Your task to perform on an android device: toggle location history Image 0: 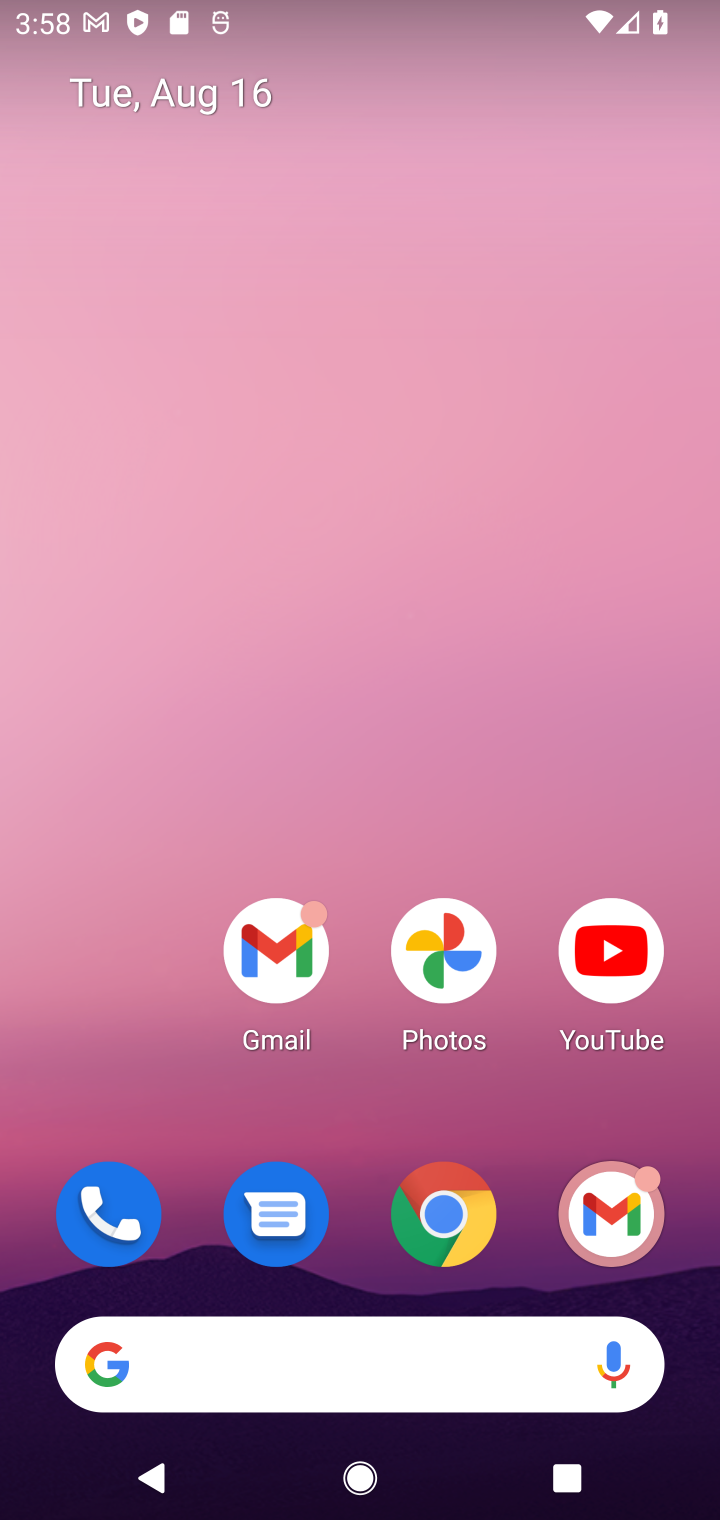
Step 0: drag from (192, 1334) to (460, 230)
Your task to perform on an android device: toggle location history Image 1: 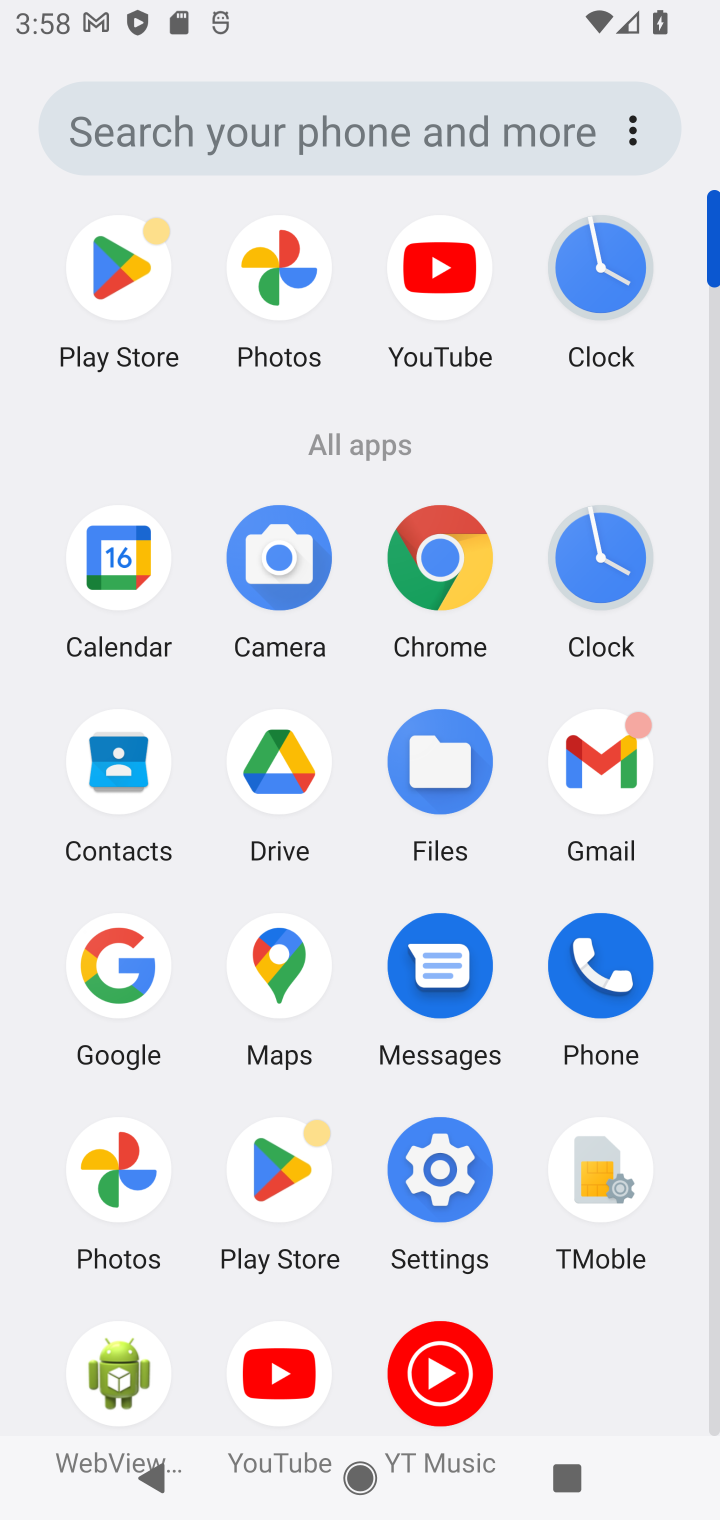
Step 1: click (449, 1169)
Your task to perform on an android device: toggle location history Image 2: 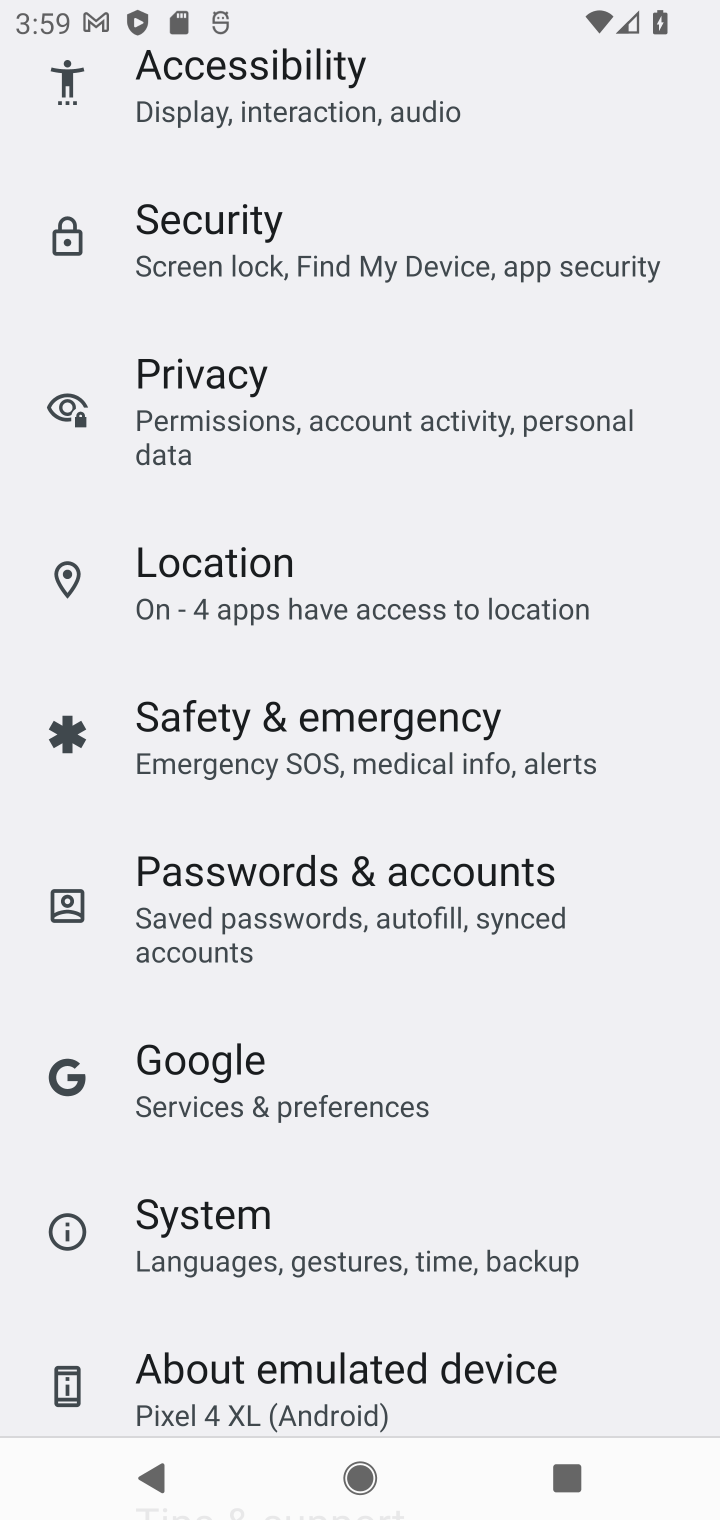
Step 2: click (206, 587)
Your task to perform on an android device: toggle location history Image 3: 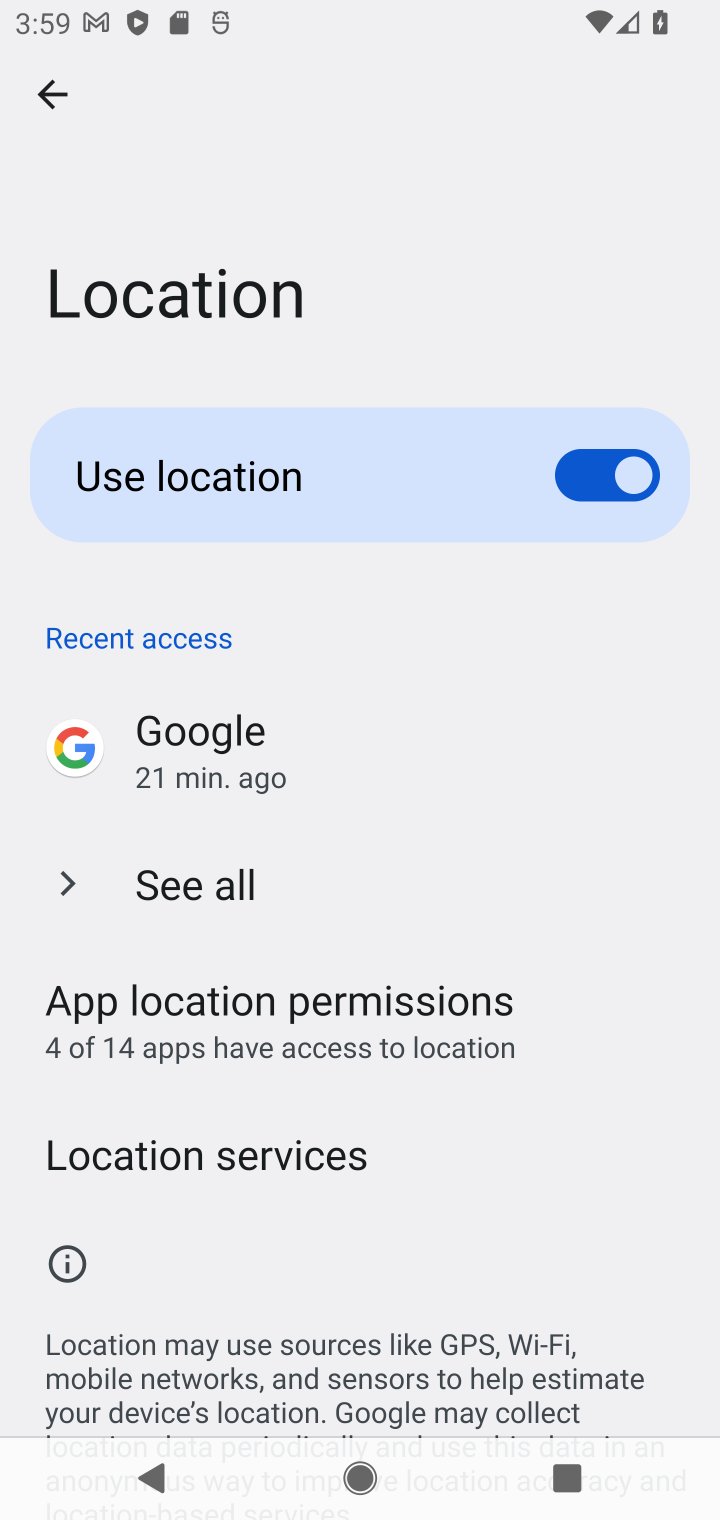
Step 3: click (122, 1162)
Your task to perform on an android device: toggle location history Image 4: 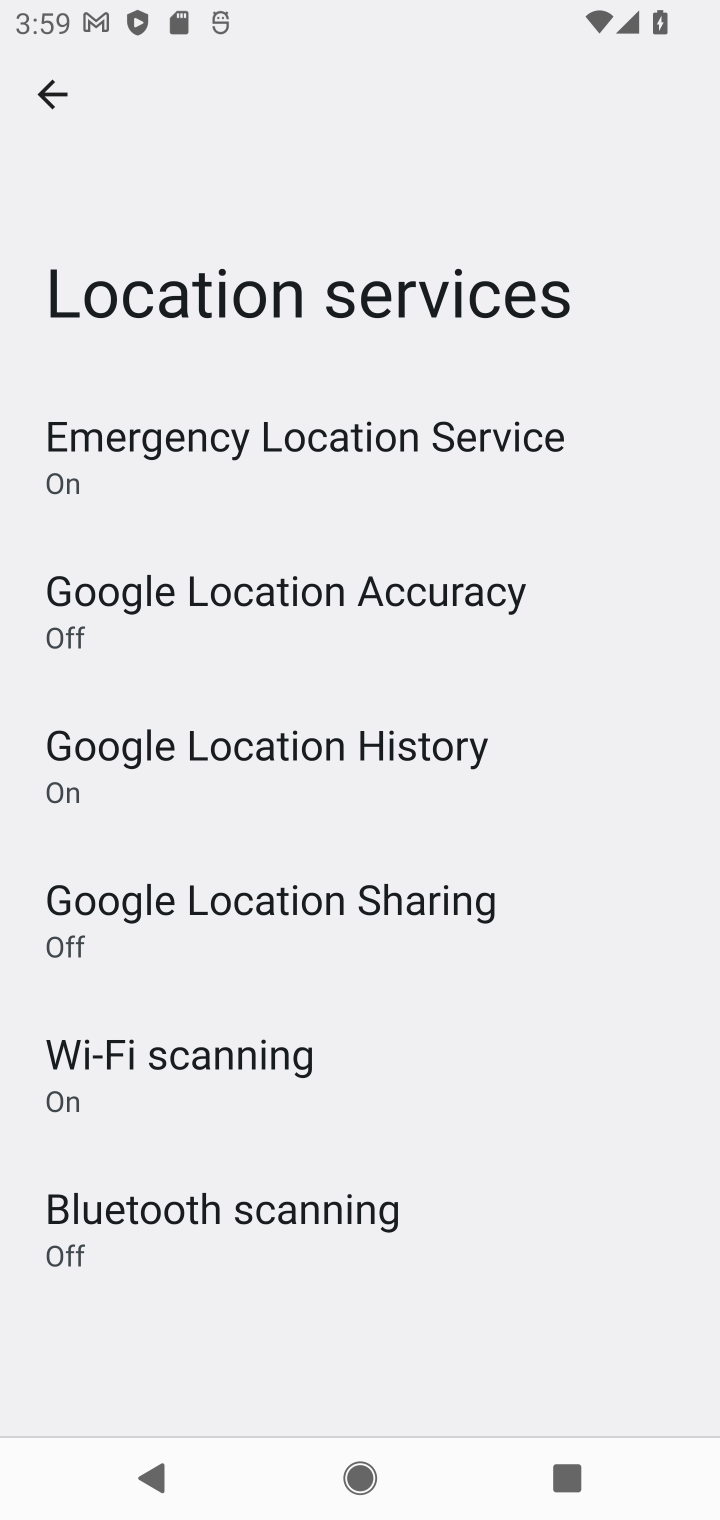
Step 4: click (395, 758)
Your task to perform on an android device: toggle location history Image 5: 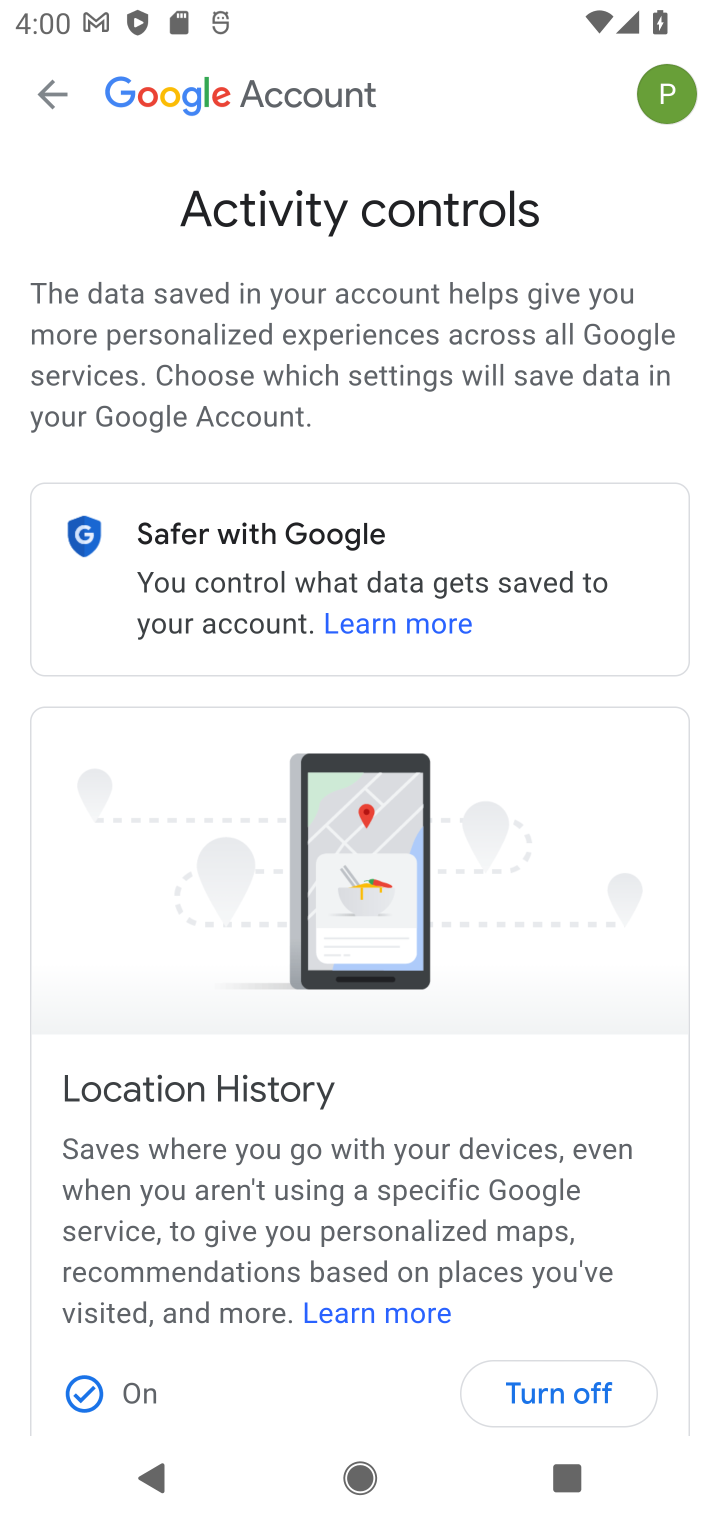
Step 5: drag from (183, 1314) to (92, 422)
Your task to perform on an android device: toggle location history Image 6: 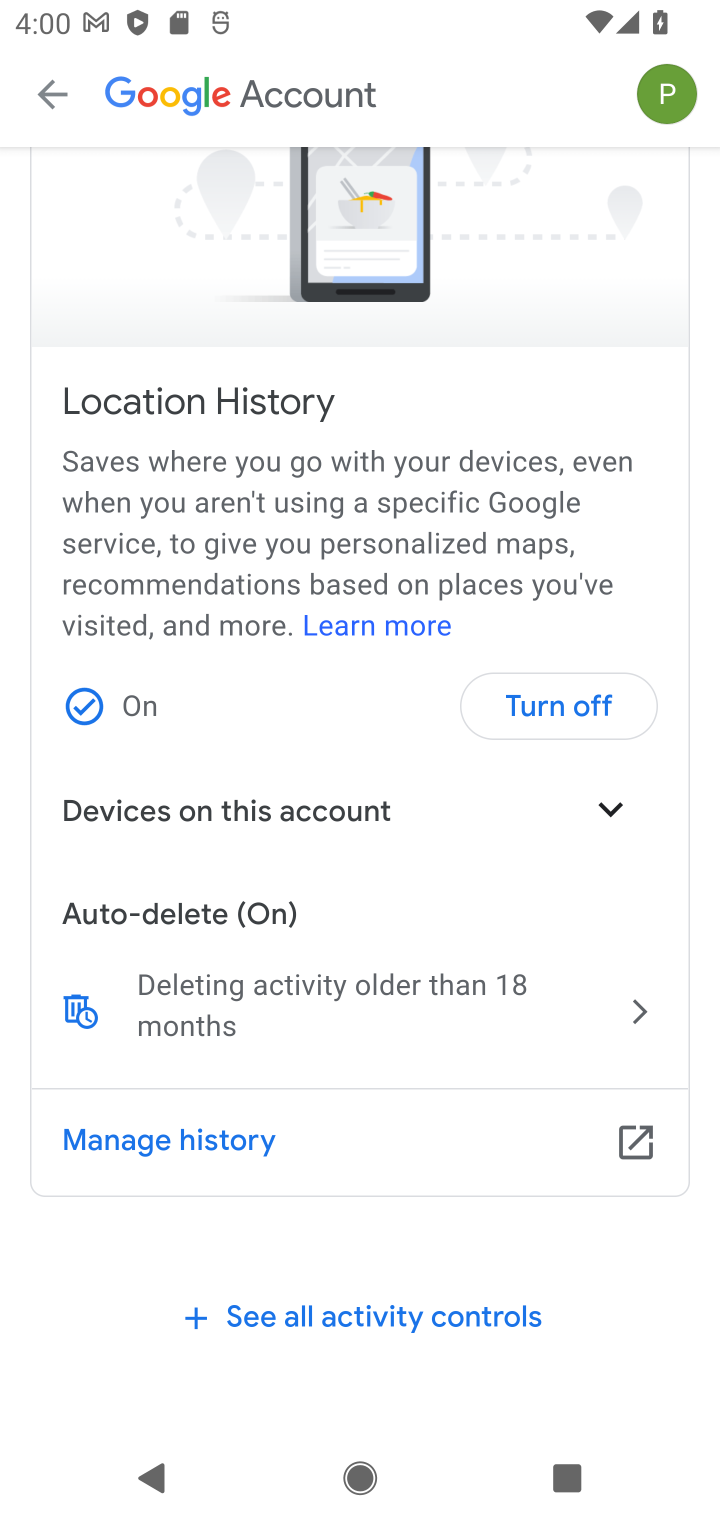
Step 6: click (579, 694)
Your task to perform on an android device: toggle location history Image 7: 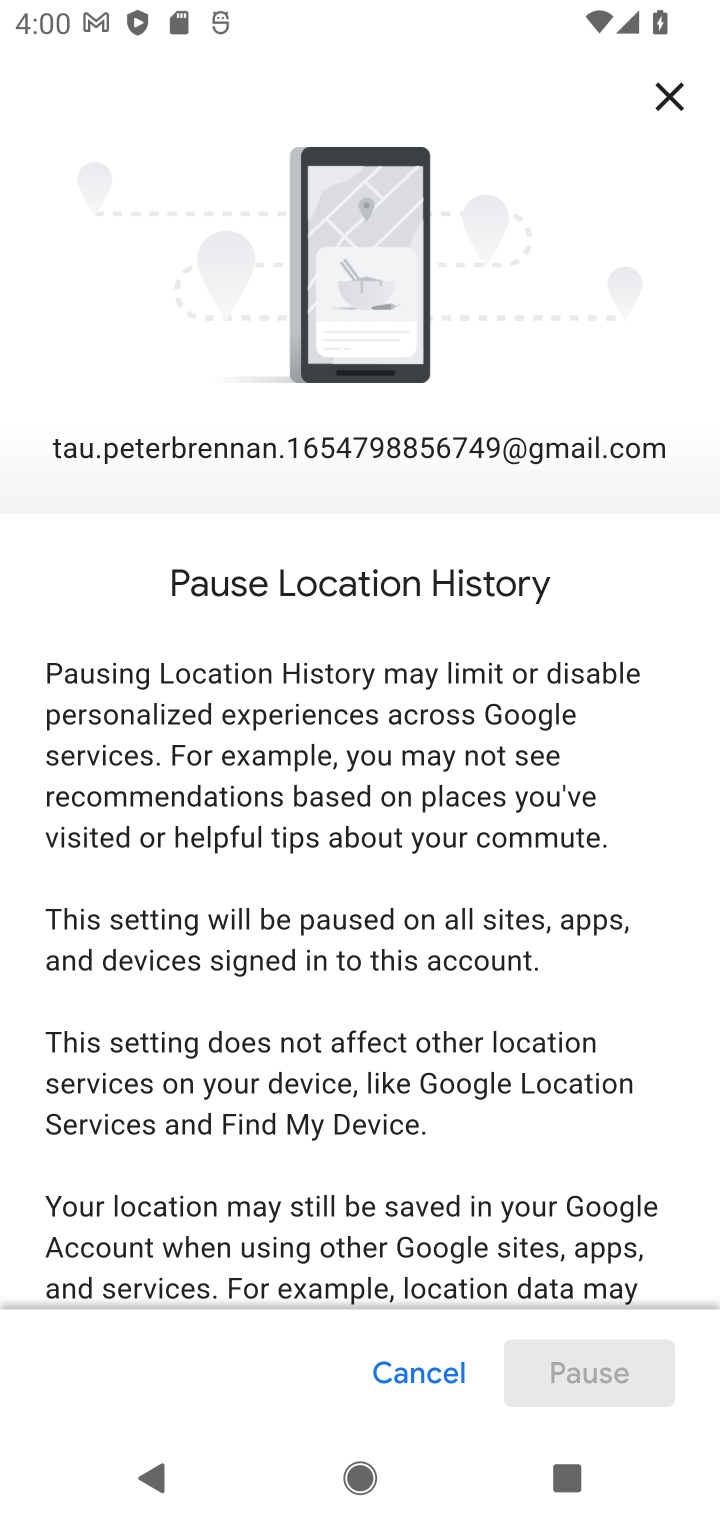
Step 7: drag from (559, 1272) to (208, 355)
Your task to perform on an android device: toggle location history Image 8: 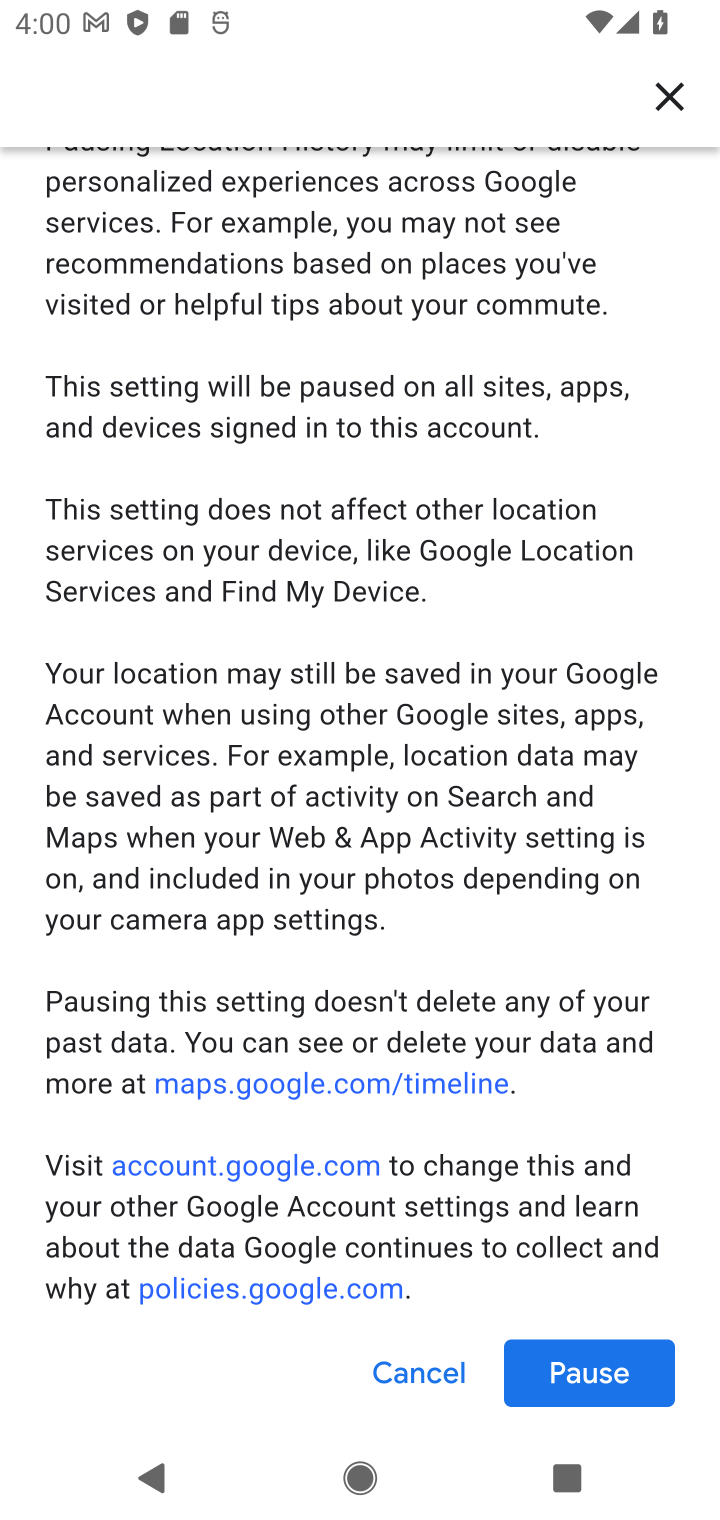
Step 8: click (574, 1401)
Your task to perform on an android device: toggle location history Image 9: 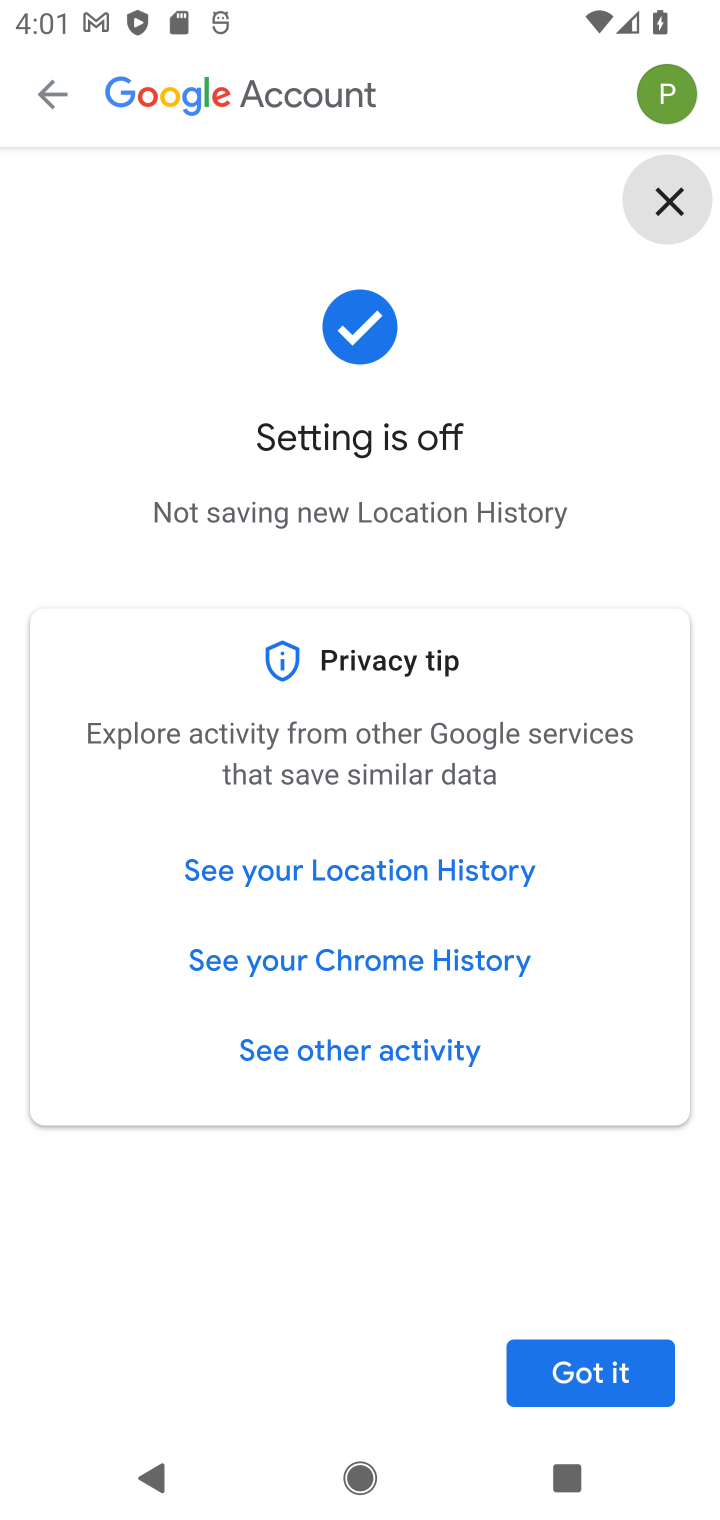
Step 9: click (548, 1383)
Your task to perform on an android device: toggle location history Image 10: 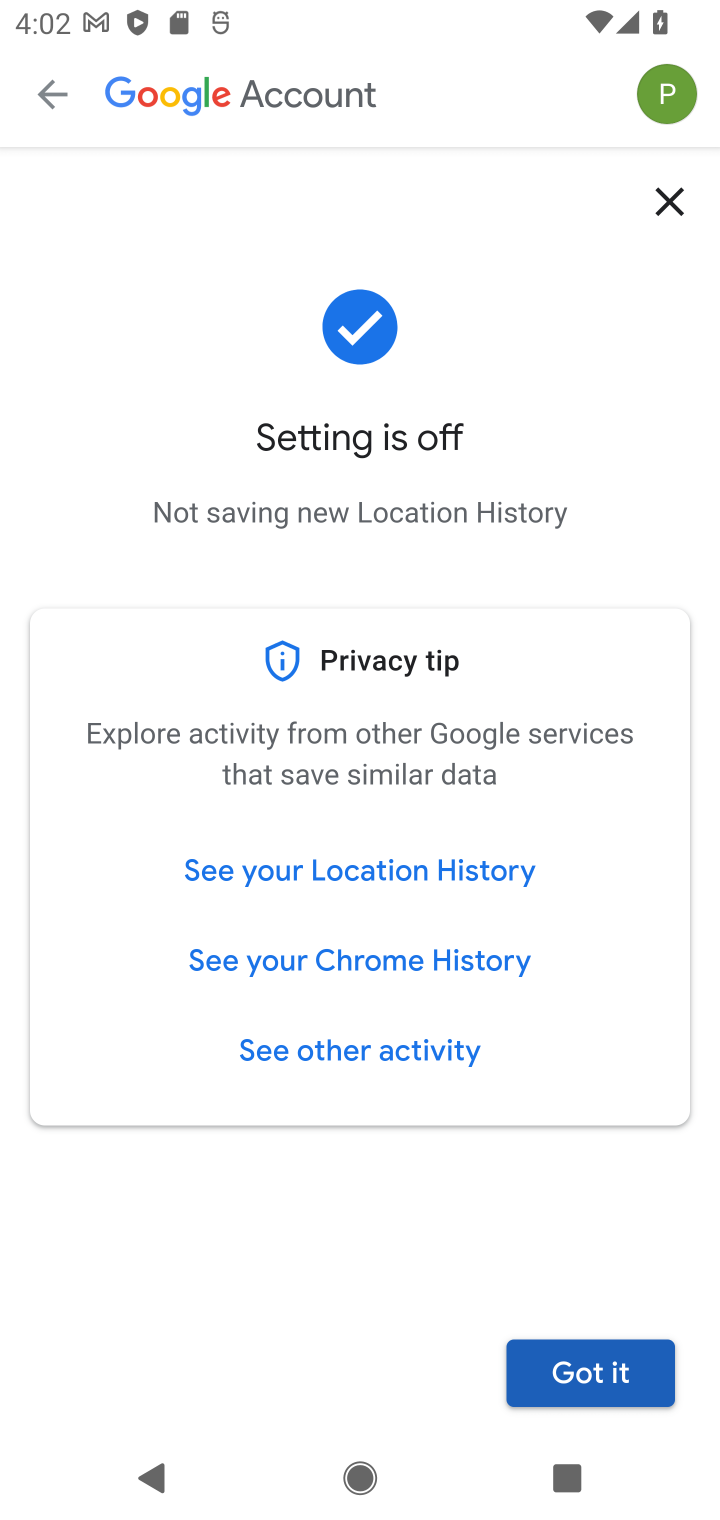
Step 10: click (559, 1353)
Your task to perform on an android device: toggle location history Image 11: 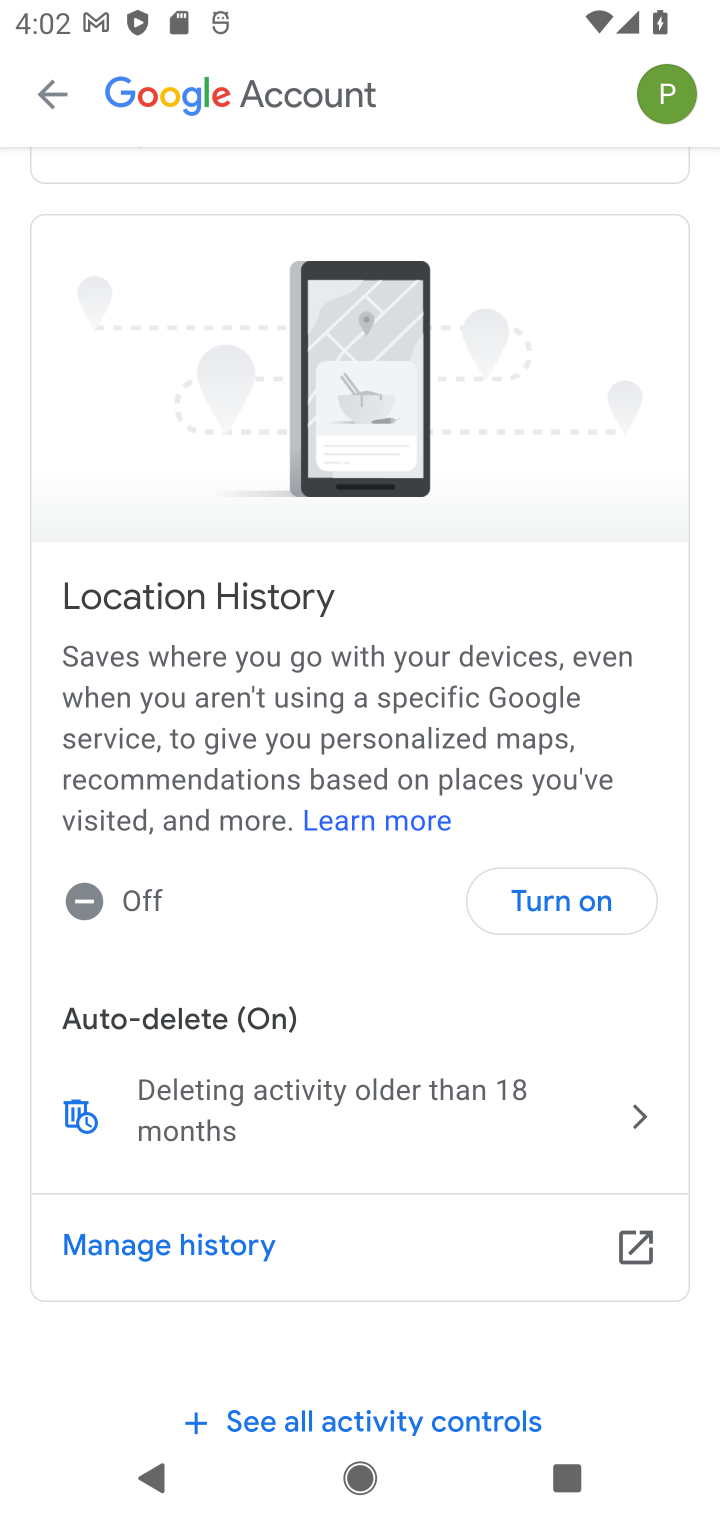
Step 11: task complete